Your task to perform on an android device: Go to location settings Image 0: 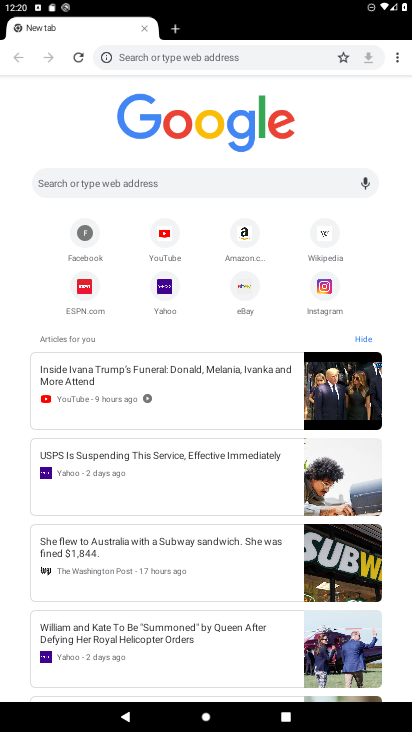
Step 0: press home button
Your task to perform on an android device: Go to location settings Image 1: 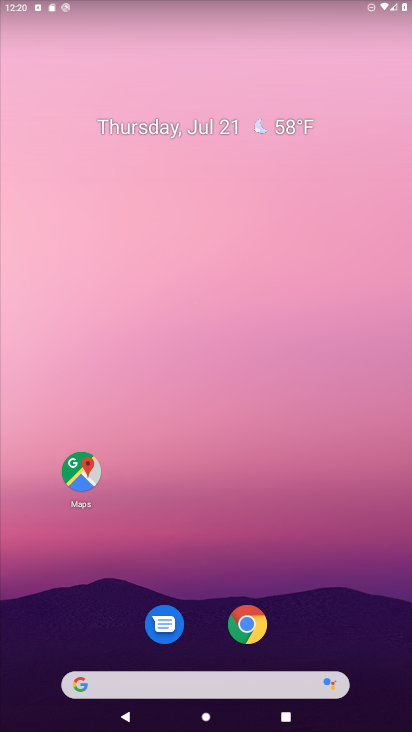
Step 1: drag from (205, 589) to (217, 223)
Your task to perform on an android device: Go to location settings Image 2: 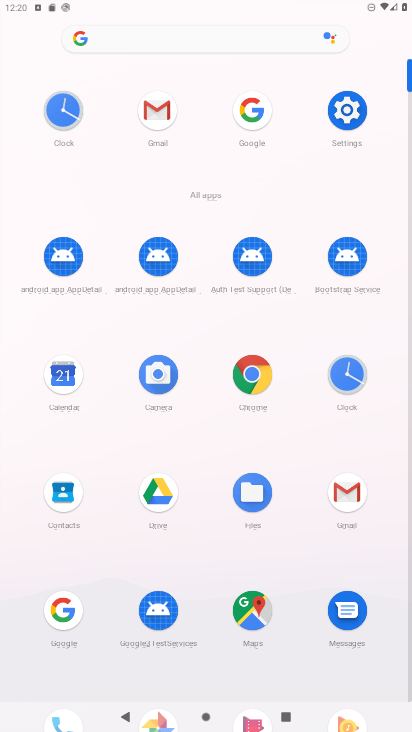
Step 2: click (350, 128)
Your task to perform on an android device: Go to location settings Image 3: 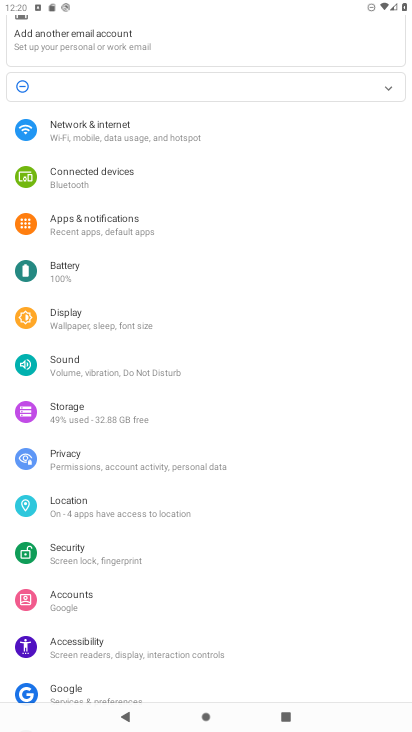
Step 3: click (128, 514)
Your task to perform on an android device: Go to location settings Image 4: 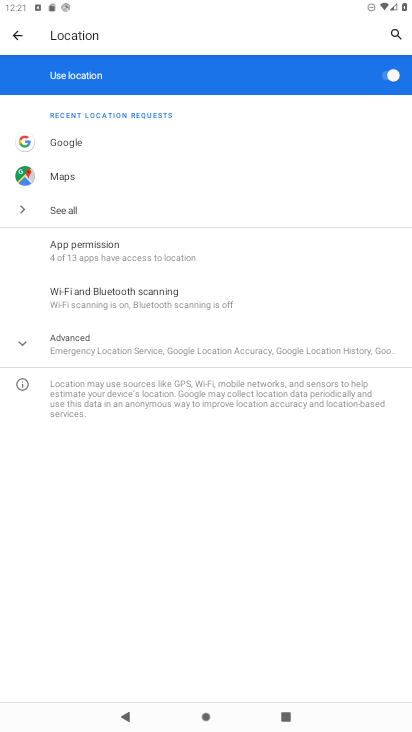
Step 4: task complete